Your task to perform on an android device: see creations saved in the google photos Image 0: 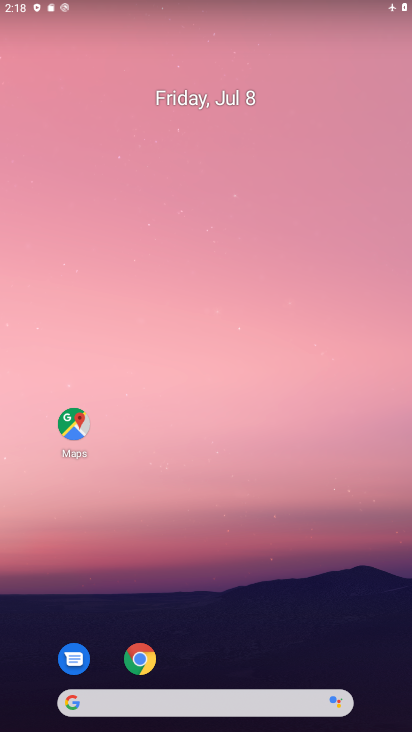
Step 0: drag from (238, 606) to (304, 211)
Your task to perform on an android device: see creations saved in the google photos Image 1: 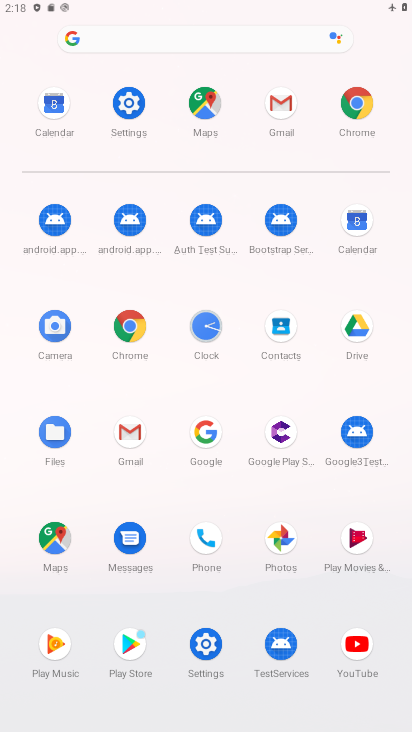
Step 1: click (283, 548)
Your task to perform on an android device: see creations saved in the google photos Image 2: 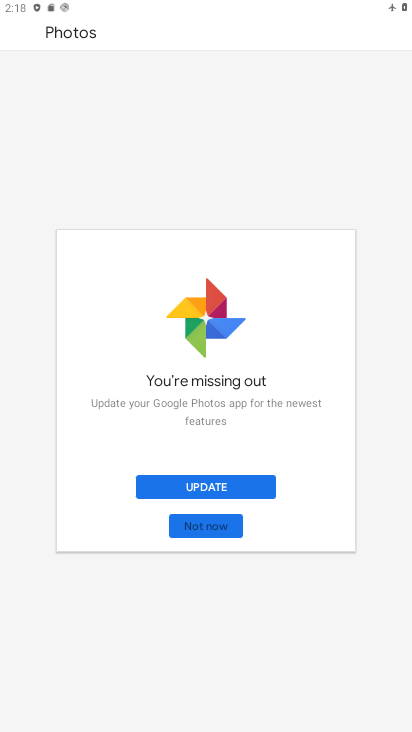
Step 2: click (231, 497)
Your task to perform on an android device: see creations saved in the google photos Image 3: 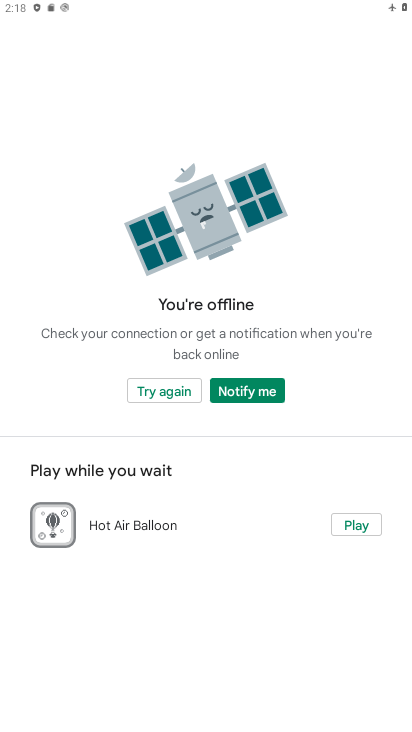
Step 3: task complete